Your task to perform on an android device: add a contact Image 0: 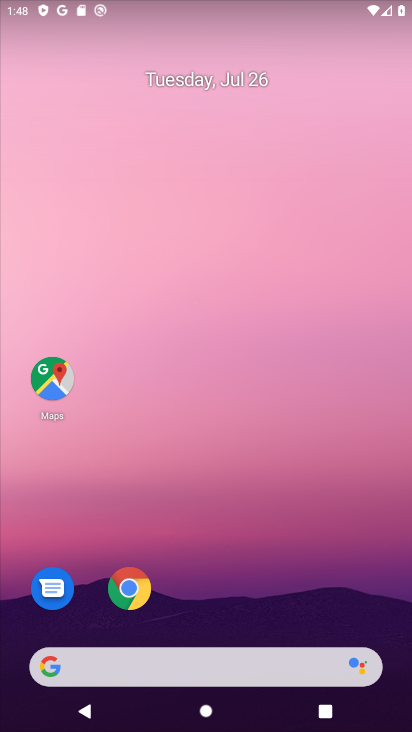
Step 0: click (98, 15)
Your task to perform on an android device: add a contact Image 1: 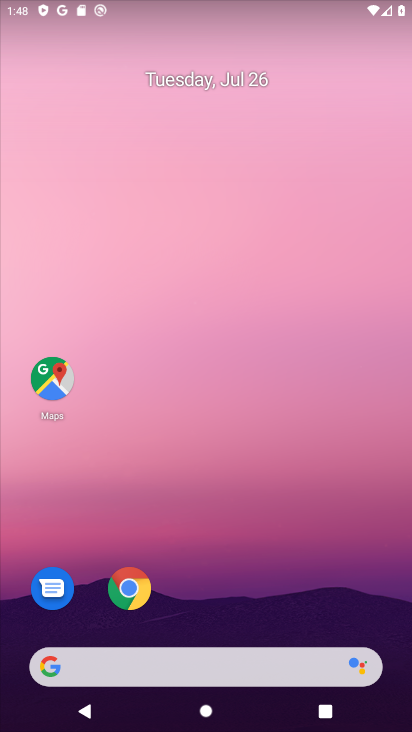
Step 1: click (105, 126)
Your task to perform on an android device: add a contact Image 2: 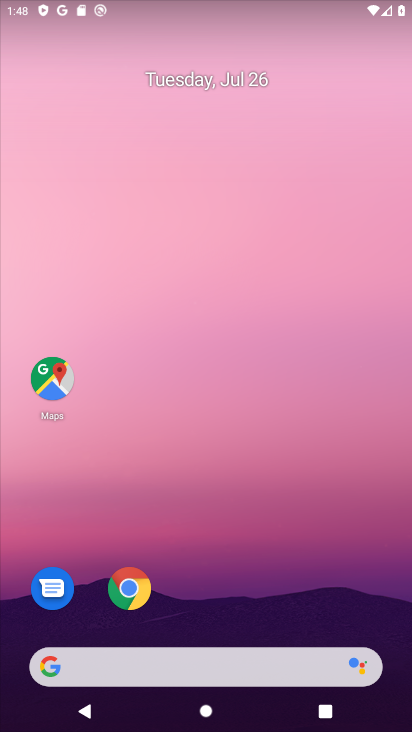
Step 2: drag from (151, 267) to (89, 192)
Your task to perform on an android device: add a contact Image 3: 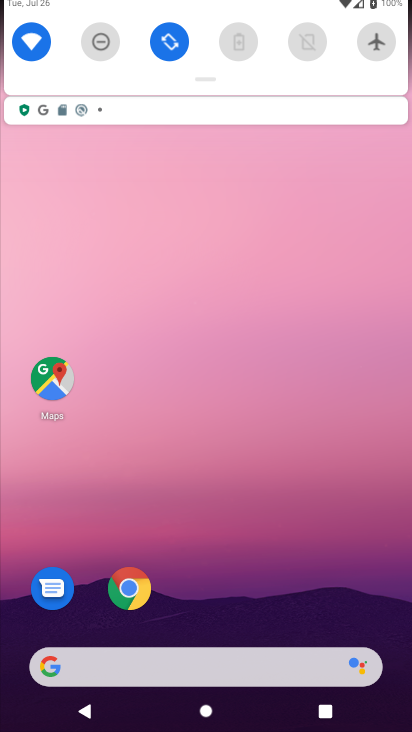
Step 3: drag from (196, 270) to (157, 138)
Your task to perform on an android device: add a contact Image 4: 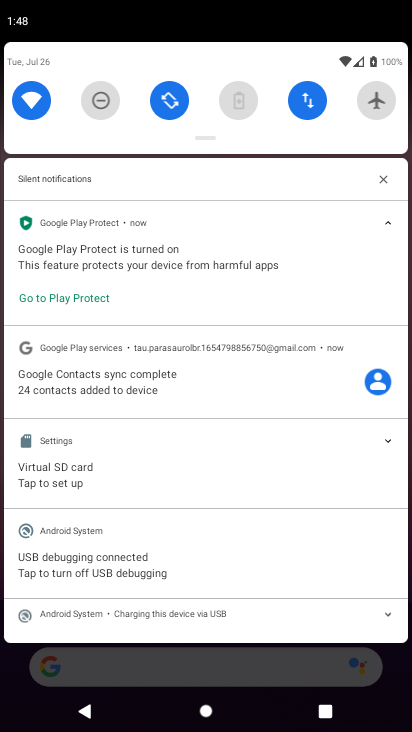
Step 4: drag from (169, 568) to (144, 220)
Your task to perform on an android device: add a contact Image 5: 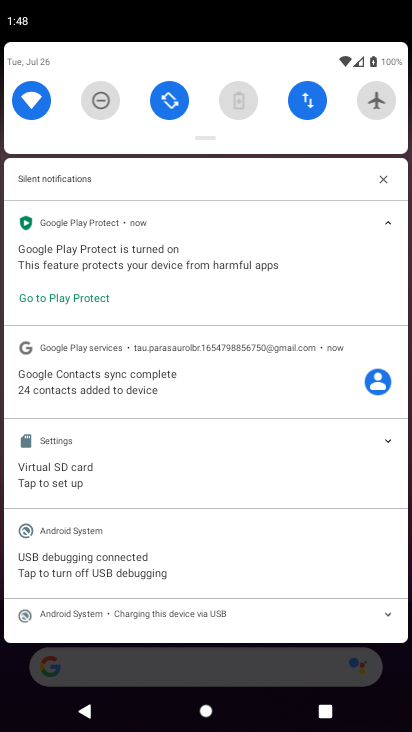
Step 5: drag from (288, 508) to (241, 288)
Your task to perform on an android device: add a contact Image 6: 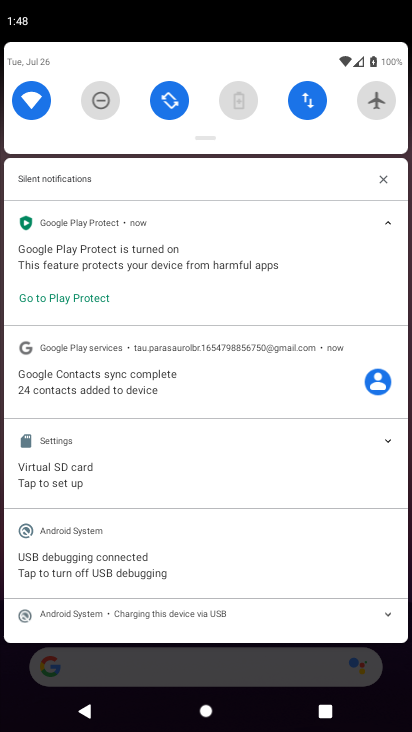
Step 6: press back button
Your task to perform on an android device: add a contact Image 7: 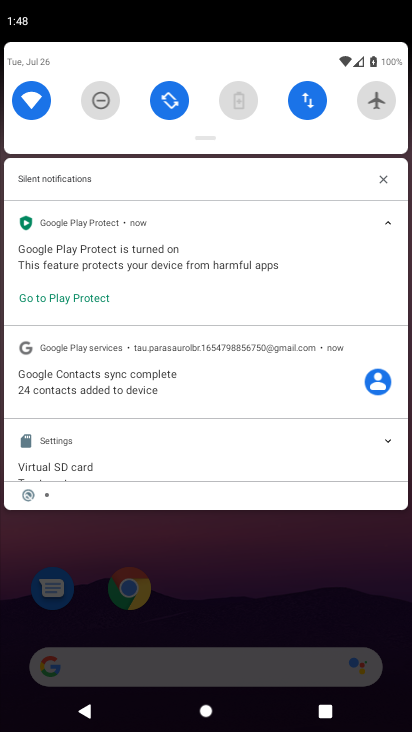
Step 7: press back button
Your task to perform on an android device: add a contact Image 8: 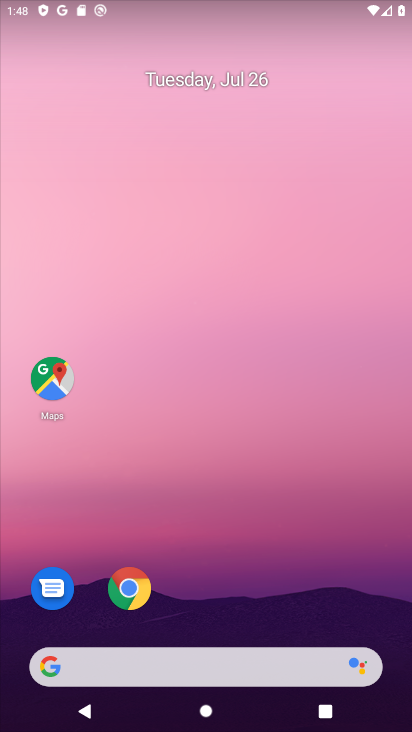
Step 8: drag from (224, 620) to (131, 284)
Your task to perform on an android device: add a contact Image 9: 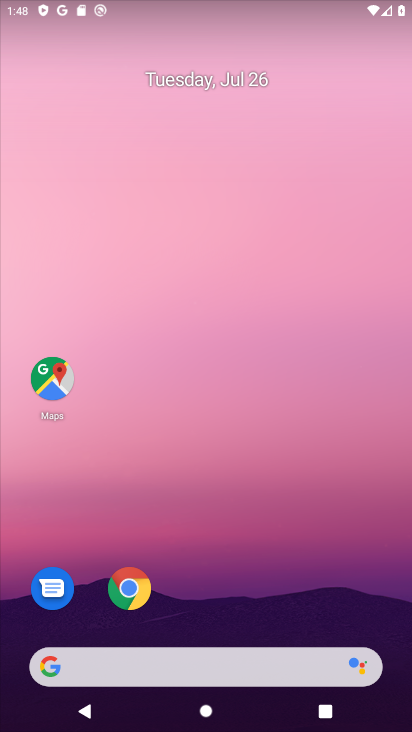
Step 9: drag from (233, 518) to (120, 199)
Your task to perform on an android device: add a contact Image 10: 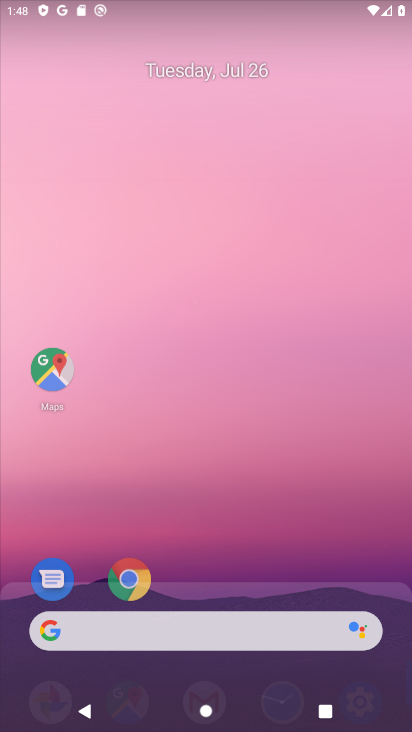
Step 10: drag from (244, 530) to (185, 166)
Your task to perform on an android device: add a contact Image 11: 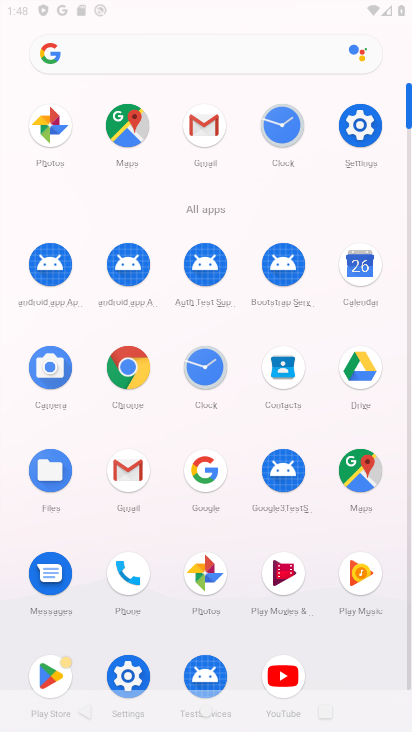
Step 11: drag from (238, 625) to (127, 280)
Your task to perform on an android device: add a contact Image 12: 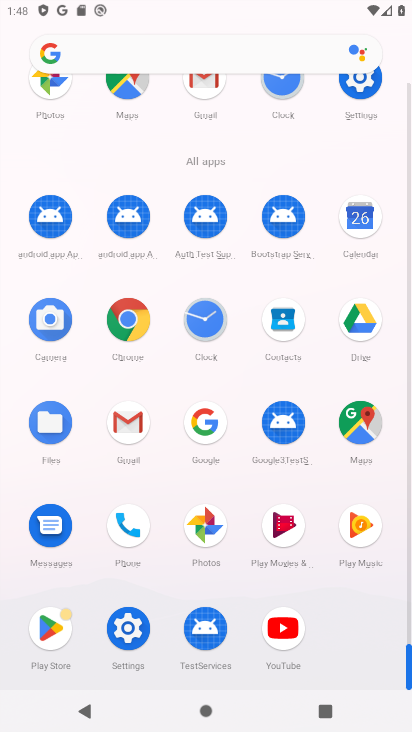
Step 12: click (298, 294)
Your task to perform on an android device: add a contact Image 13: 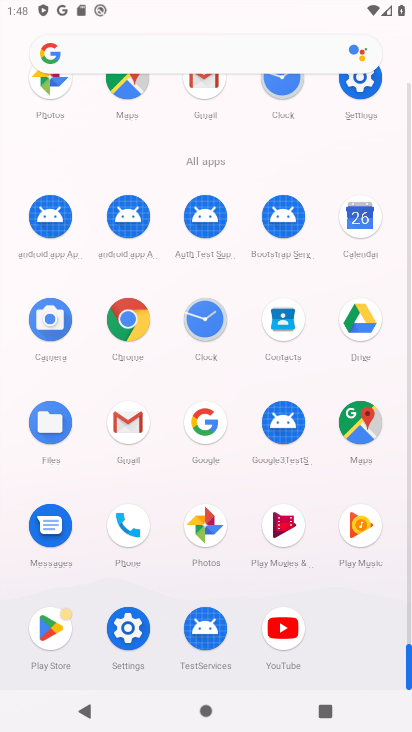
Step 13: click (293, 309)
Your task to perform on an android device: add a contact Image 14: 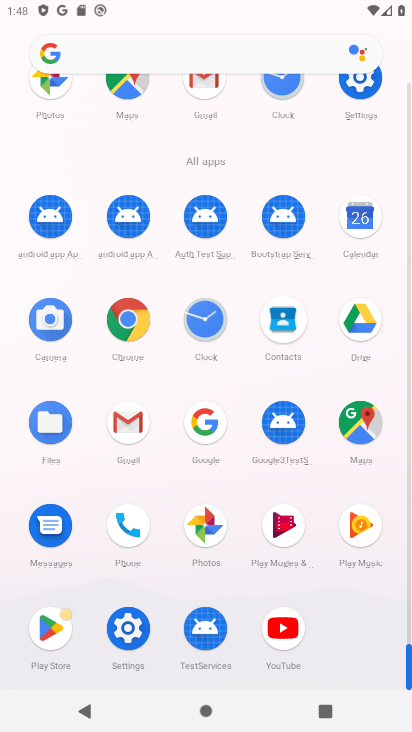
Step 14: click (289, 319)
Your task to perform on an android device: add a contact Image 15: 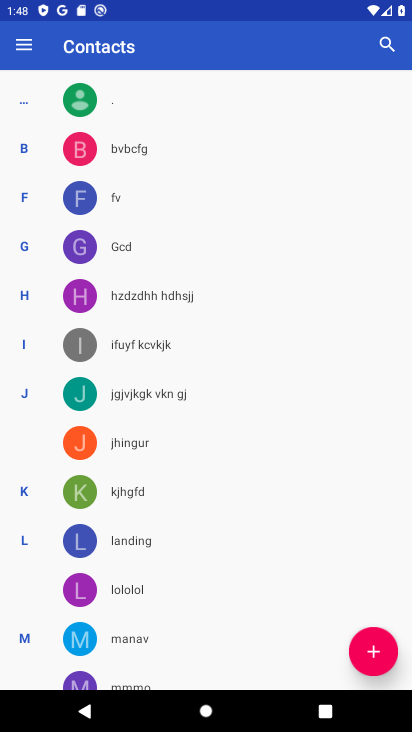
Step 15: click (380, 645)
Your task to perform on an android device: add a contact Image 16: 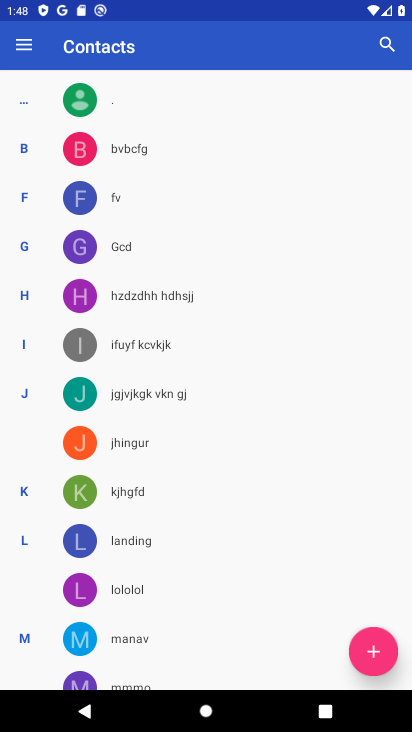
Step 16: click (379, 644)
Your task to perform on an android device: add a contact Image 17: 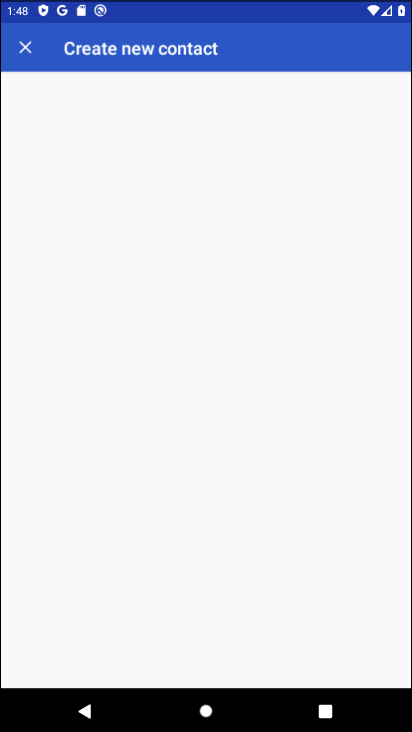
Step 17: click (379, 644)
Your task to perform on an android device: add a contact Image 18: 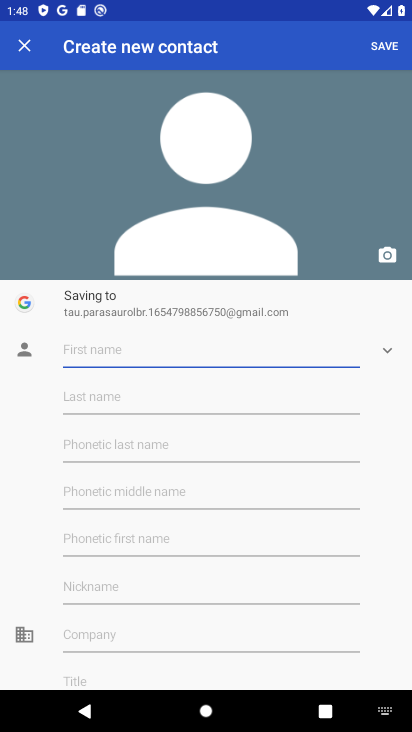
Step 18: type "cvghgvhgvbh"
Your task to perform on an android device: add a contact Image 19: 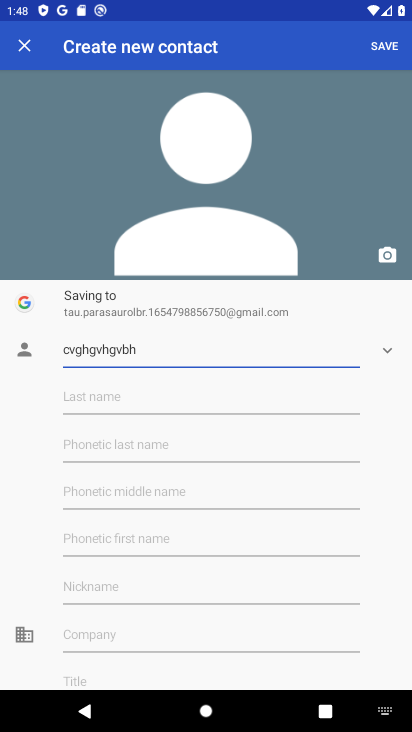
Step 19: click (95, 448)
Your task to perform on an android device: add a contact Image 20: 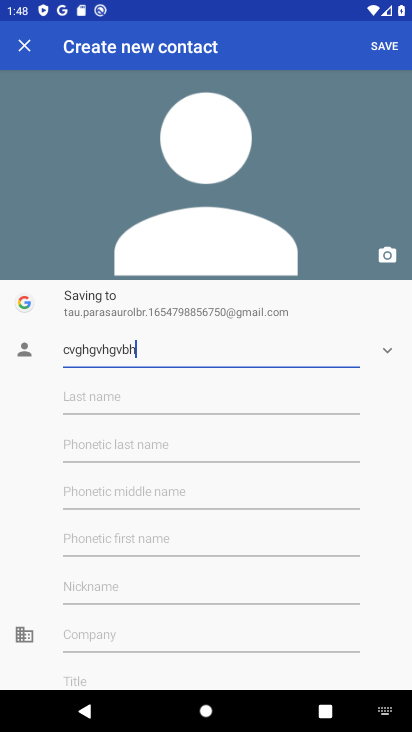
Step 20: click (95, 448)
Your task to perform on an android device: add a contact Image 21: 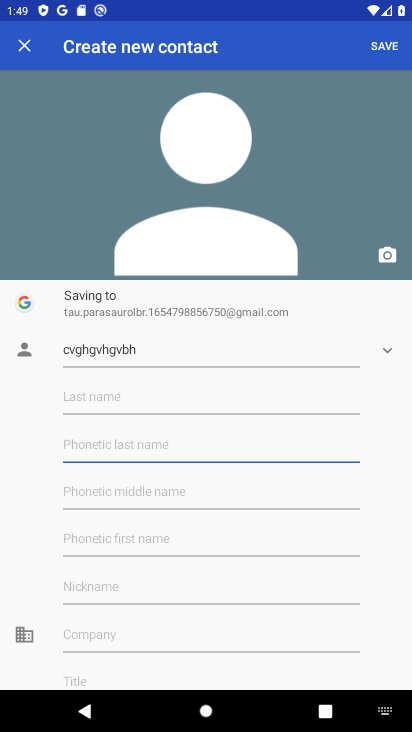
Step 21: click (95, 448)
Your task to perform on an android device: add a contact Image 22: 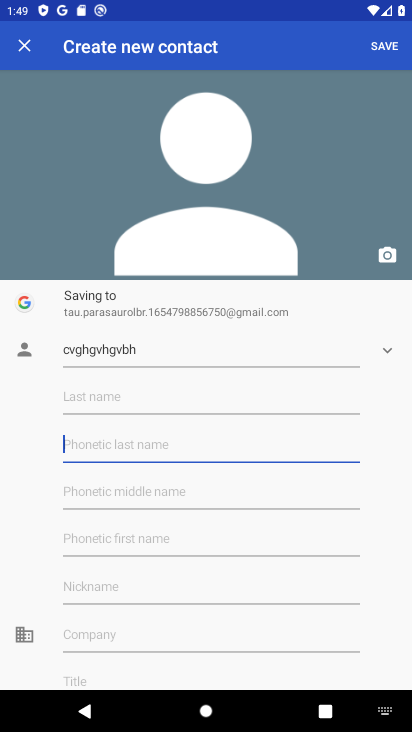
Step 22: click (95, 448)
Your task to perform on an android device: add a contact Image 23: 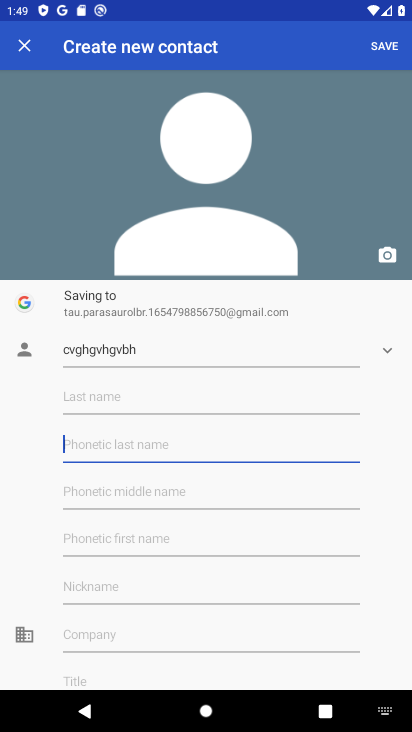
Step 23: type "7676t876689"
Your task to perform on an android device: add a contact Image 24: 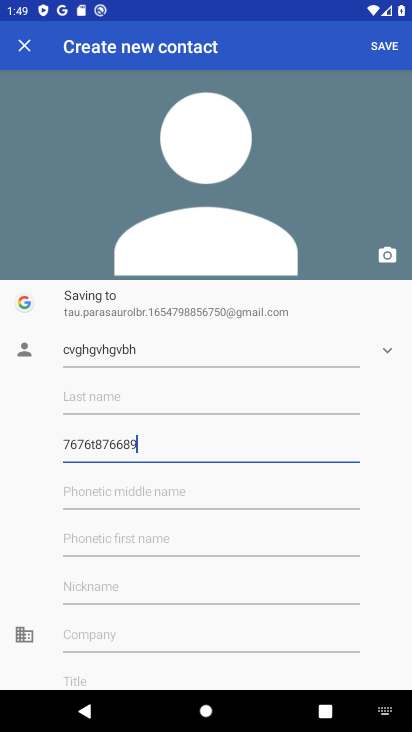
Step 24: click (389, 49)
Your task to perform on an android device: add a contact Image 25: 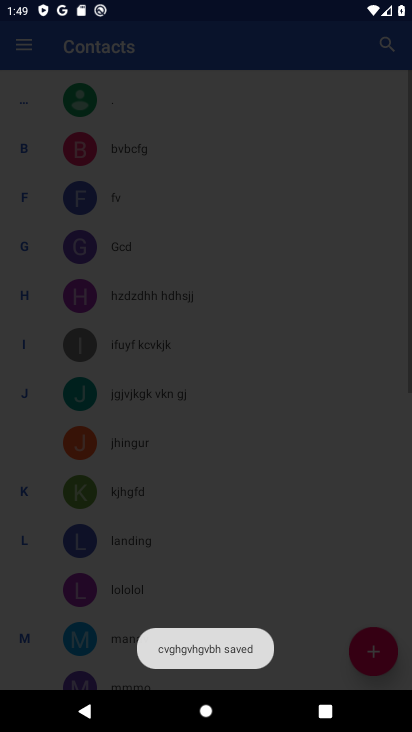
Step 25: click (389, 49)
Your task to perform on an android device: add a contact Image 26: 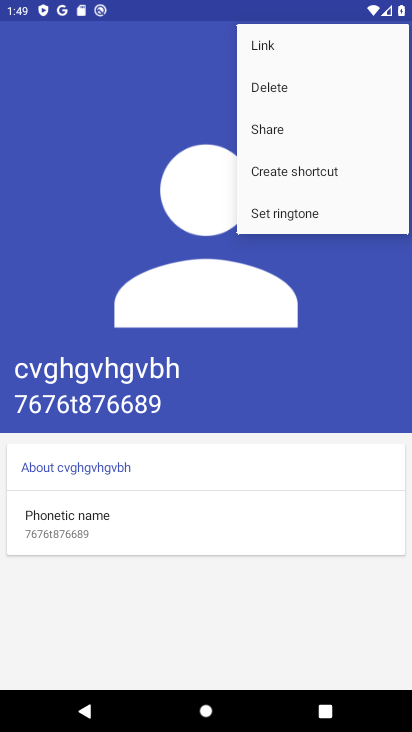
Step 26: click (159, 125)
Your task to perform on an android device: add a contact Image 27: 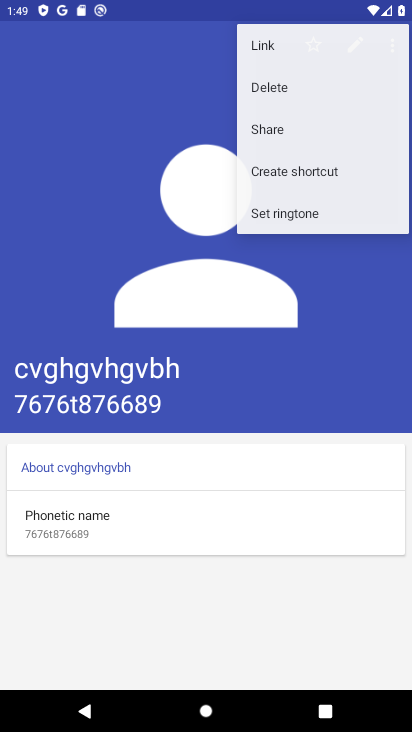
Step 27: click (159, 125)
Your task to perform on an android device: add a contact Image 28: 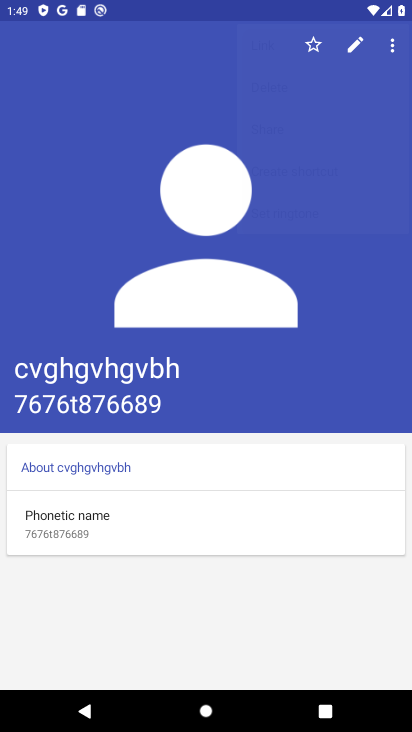
Step 28: click (159, 125)
Your task to perform on an android device: add a contact Image 29: 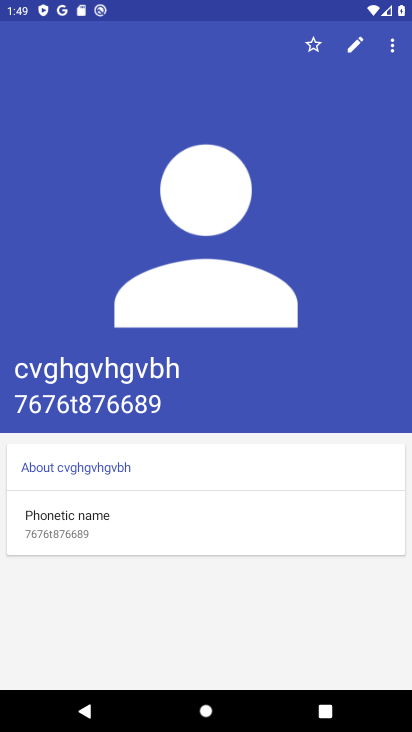
Step 29: click (159, 125)
Your task to perform on an android device: add a contact Image 30: 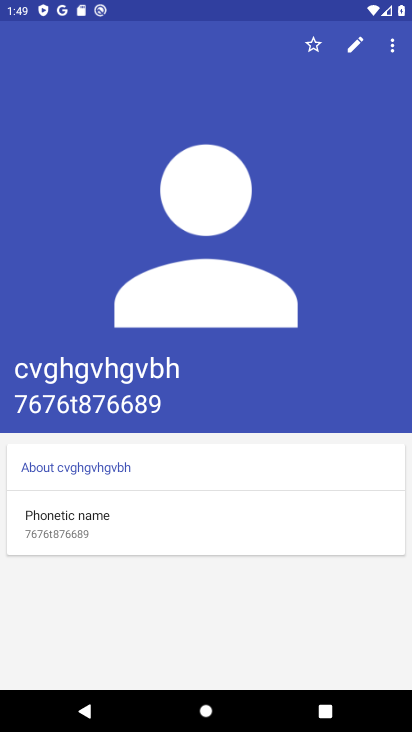
Step 30: click (159, 125)
Your task to perform on an android device: add a contact Image 31: 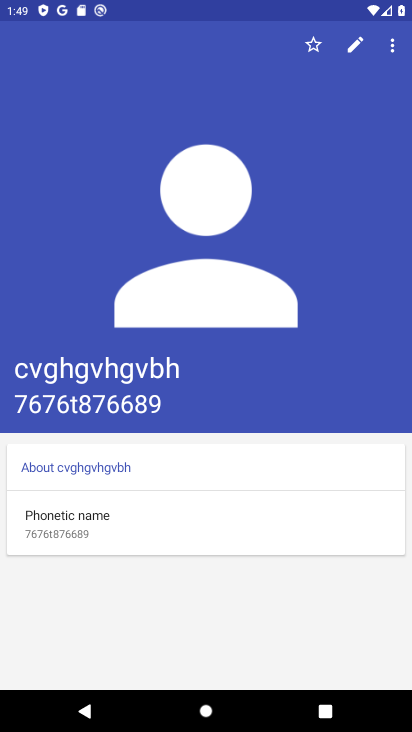
Step 31: task complete